Your task to perform on an android device: Go to notification settings Image 0: 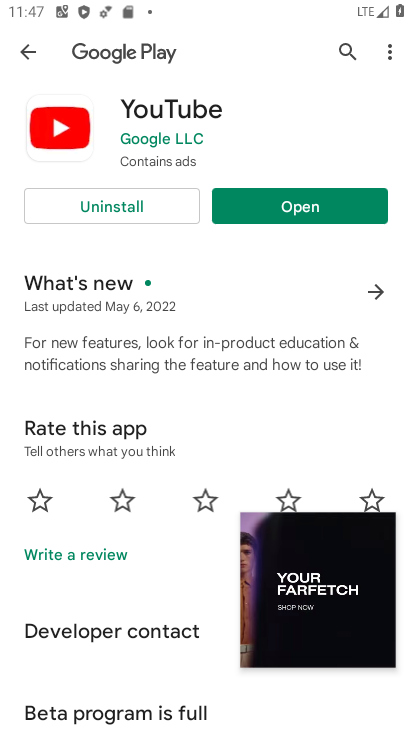
Step 0: click (375, 528)
Your task to perform on an android device: Go to notification settings Image 1: 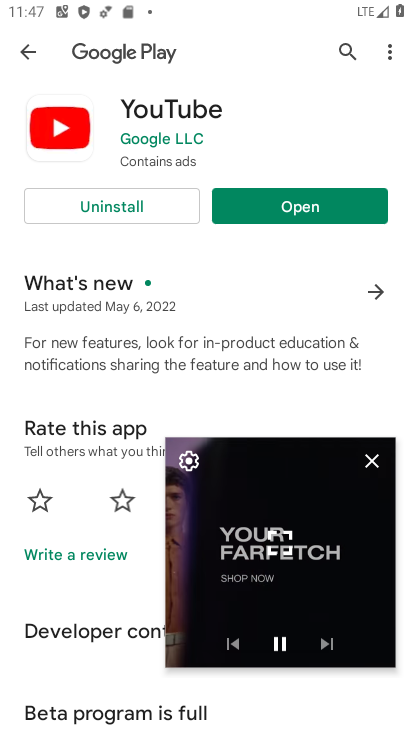
Step 1: press home button
Your task to perform on an android device: Go to notification settings Image 2: 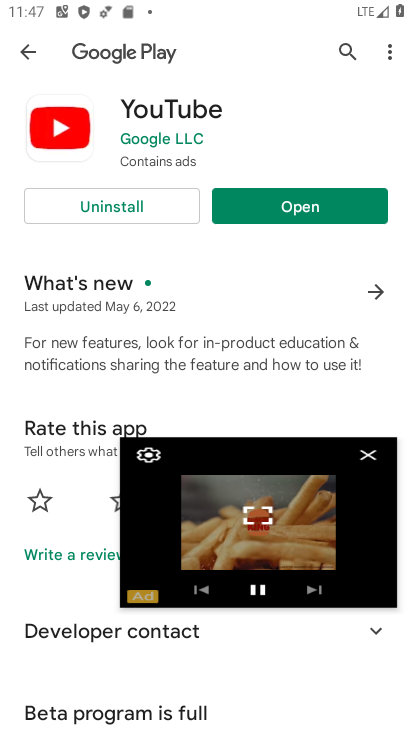
Step 2: press home button
Your task to perform on an android device: Go to notification settings Image 3: 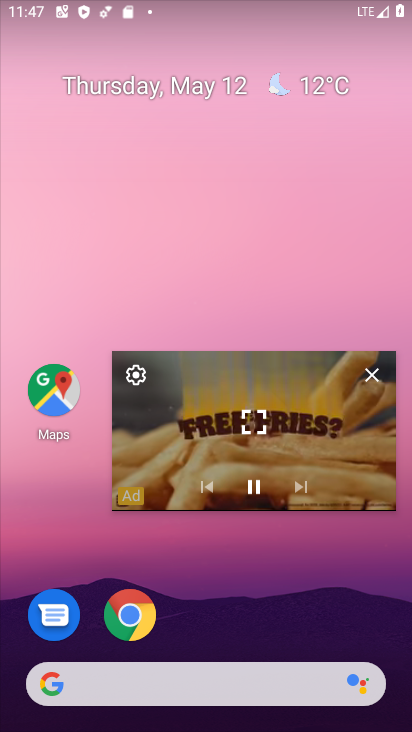
Step 3: click (363, 390)
Your task to perform on an android device: Go to notification settings Image 4: 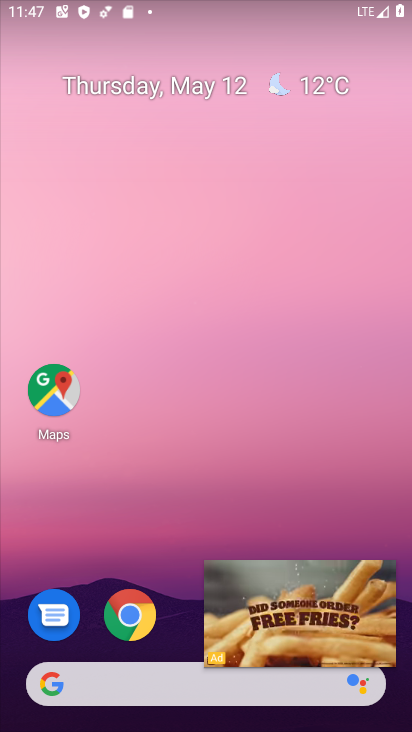
Step 4: click (371, 378)
Your task to perform on an android device: Go to notification settings Image 5: 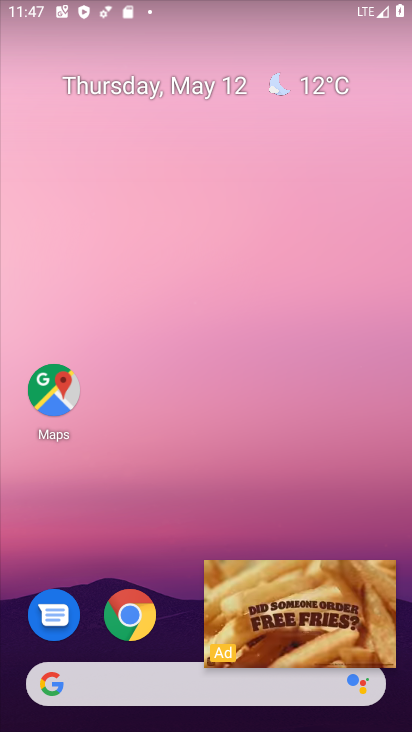
Step 5: click (372, 568)
Your task to perform on an android device: Go to notification settings Image 6: 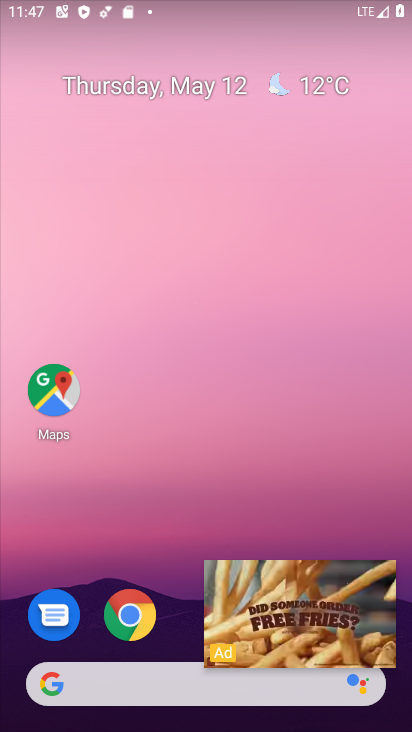
Step 6: click (376, 568)
Your task to perform on an android device: Go to notification settings Image 7: 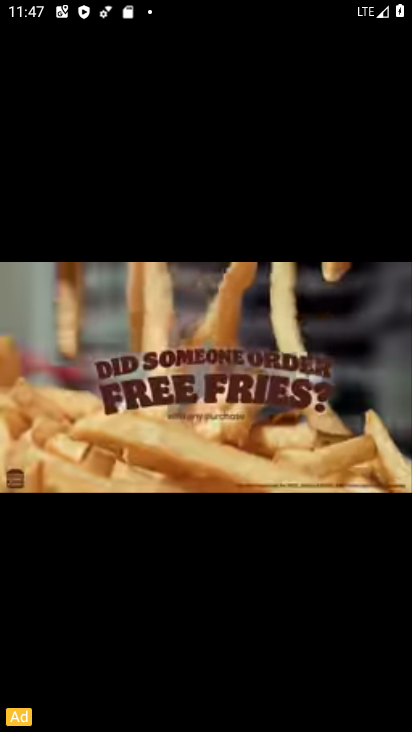
Step 7: click (374, 531)
Your task to perform on an android device: Go to notification settings Image 8: 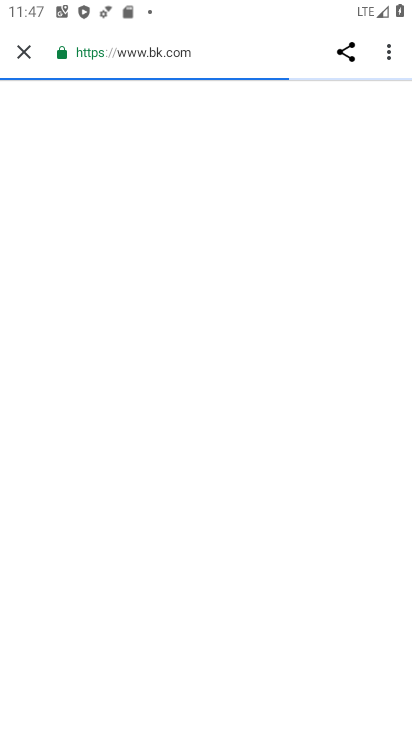
Step 8: press home button
Your task to perform on an android device: Go to notification settings Image 9: 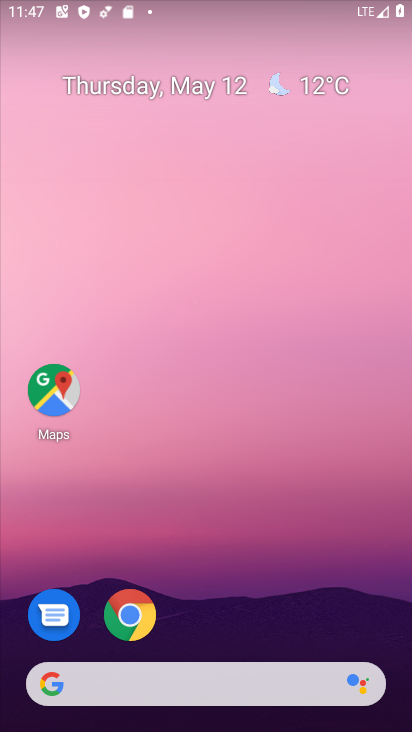
Step 9: drag from (208, 615) to (208, 181)
Your task to perform on an android device: Go to notification settings Image 10: 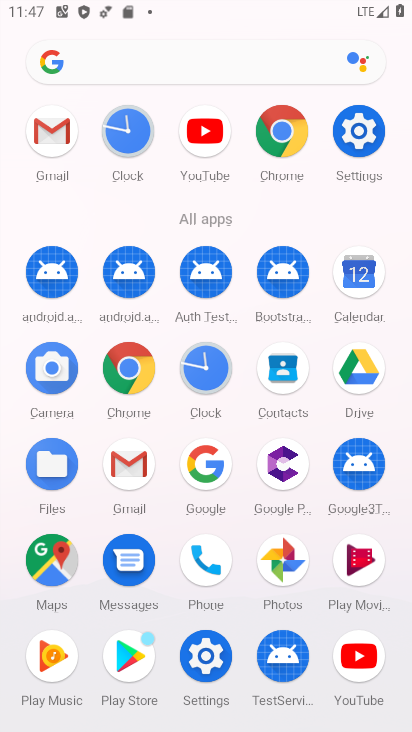
Step 10: click (353, 152)
Your task to perform on an android device: Go to notification settings Image 11: 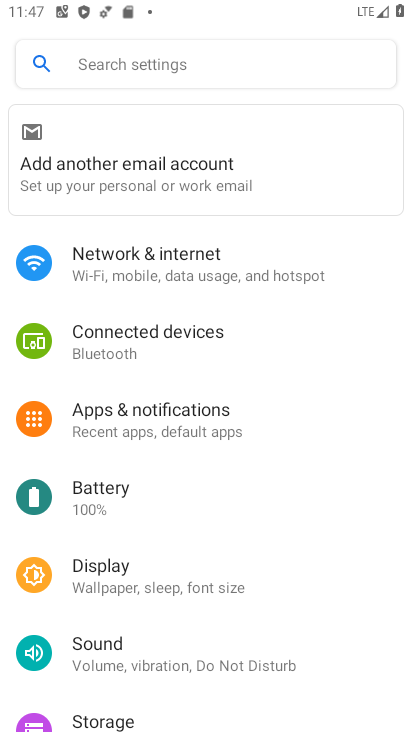
Step 11: click (199, 405)
Your task to perform on an android device: Go to notification settings Image 12: 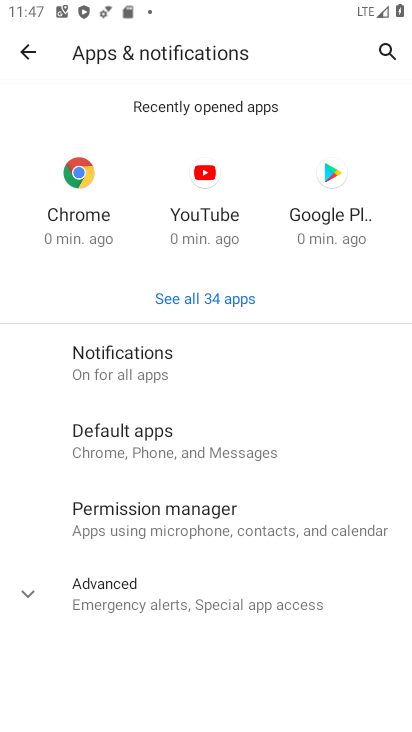
Step 12: click (170, 374)
Your task to perform on an android device: Go to notification settings Image 13: 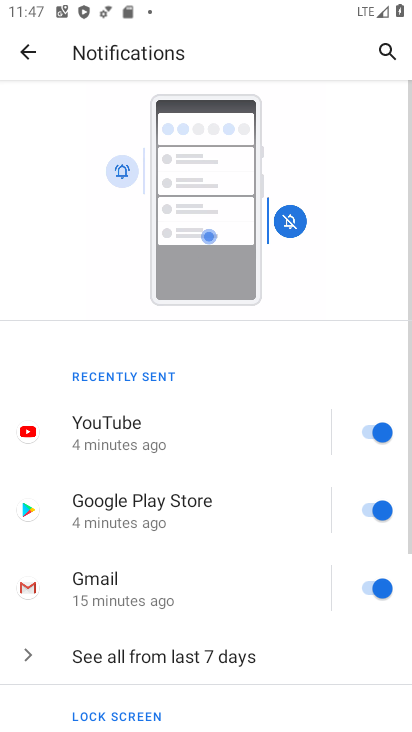
Step 13: task complete